Your task to perform on an android device: find which apps use the phone's location Image 0: 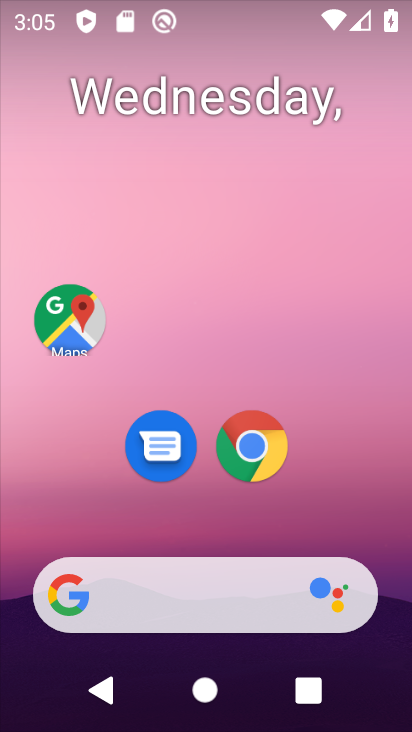
Step 0: drag from (227, 433) to (222, 143)
Your task to perform on an android device: find which apps use the phone's location Image 1: 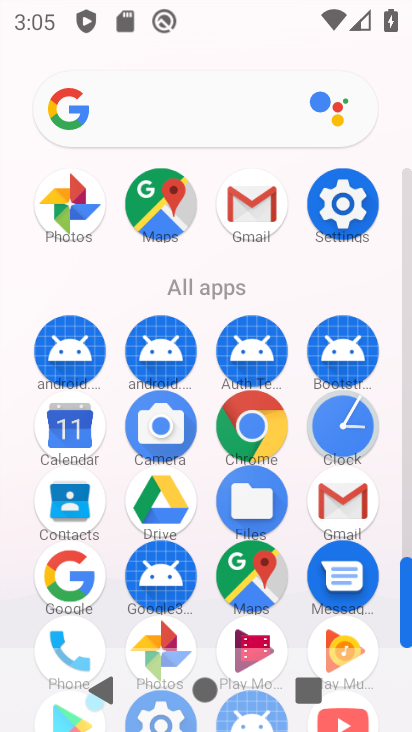
Step 1: click (355, 211)
Your task to perform on an android device: find which apps use the phone's location Image 2: 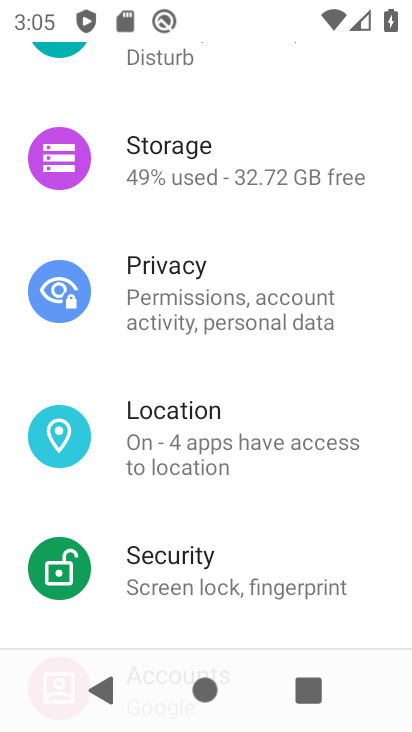
Step 2: click (196, 425)
Your task to perform on an android device: find which apps use the phone's location Image 3: 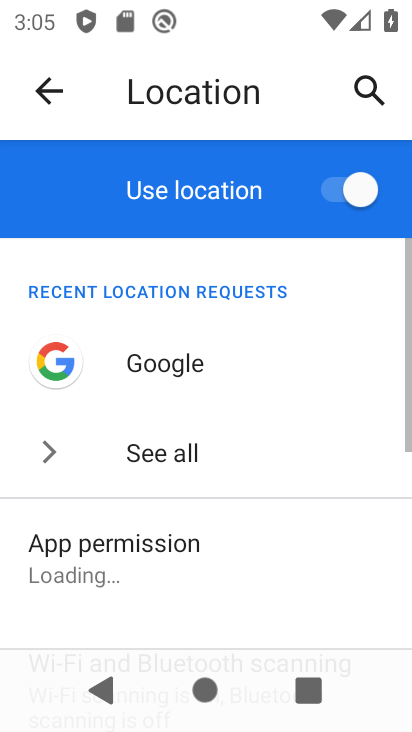
Step 3: click (180, 554)
Your task to perform on an android device: find which apps use the phone's location Image 4: 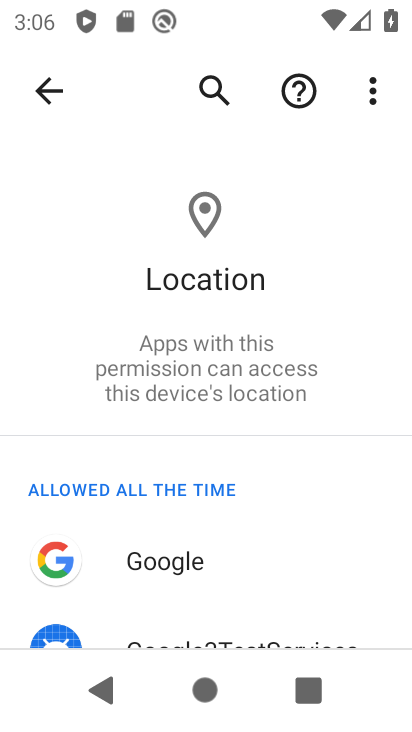
Step 4: task complete